Your task to perform on an android device: Open Android settings Image 0: 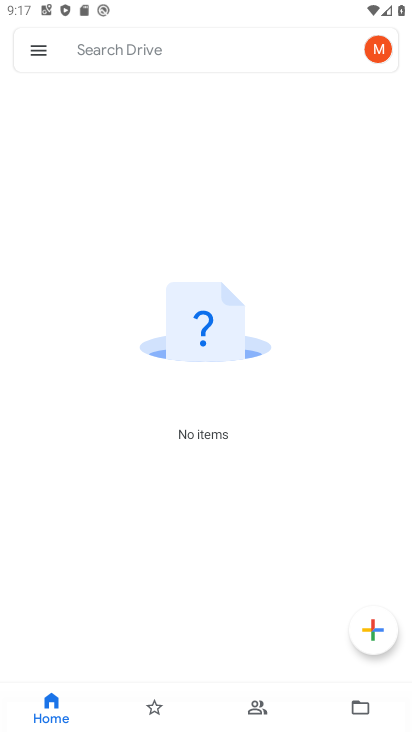
Step 0: press home button
Your task to perform on an android device: Open Android settings Image 1: 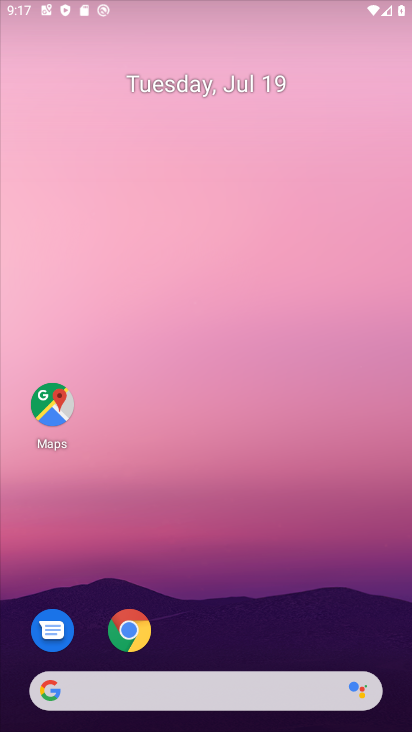
Step 1: drag from (194, 628) to (216, 81)
Your task to perform on an android device: Open Android settings Image 2: 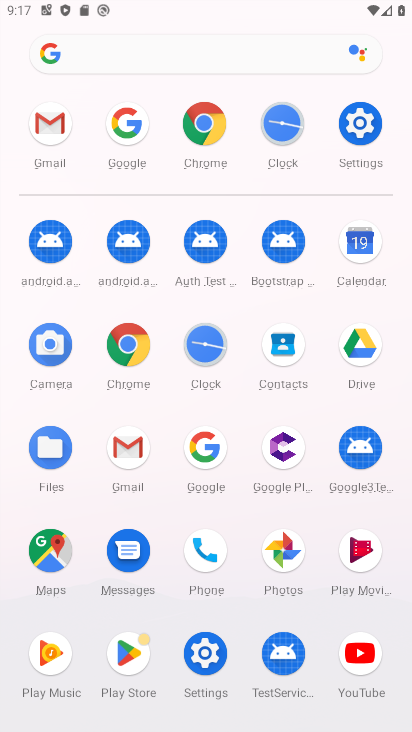
Step 2: click (363, 124)
Your task to perform on an android device: Open Android settings Image 3: 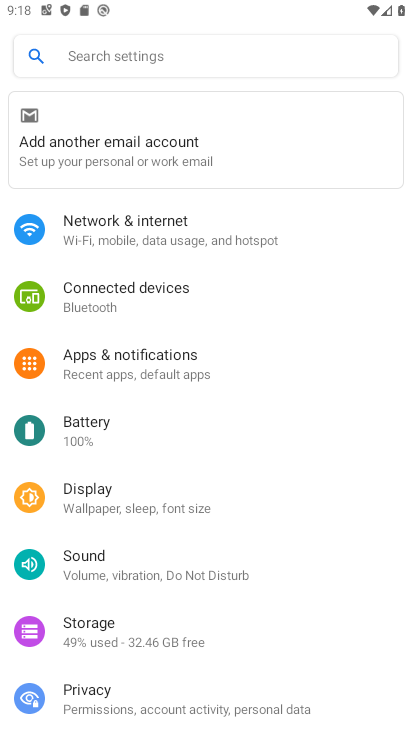
Step 3: task complete